Your task to perform on an android device: turn off sleep mode Image 0: 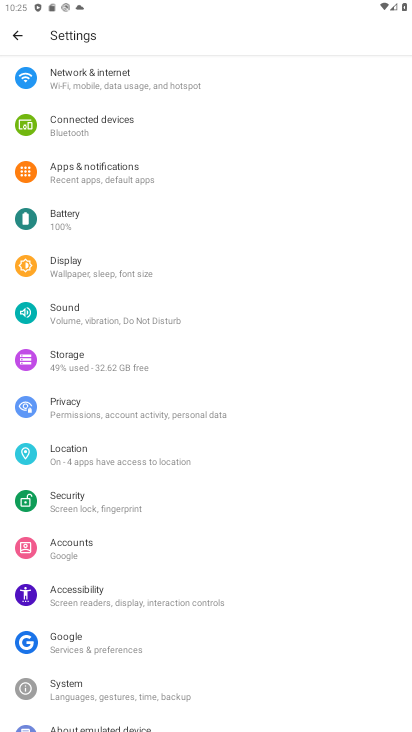
Step 0: click (119, 266)
Your task to perform on an android device: turn off sleep mode Image 1: 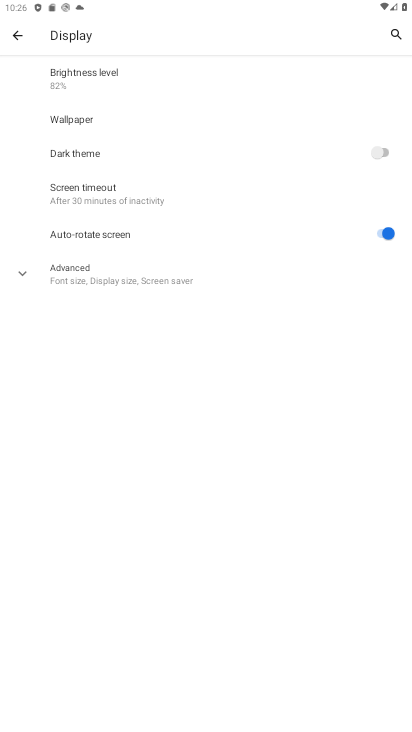
Step 1: task complete